Your task to perform on an android device: toggle javascript in the chrome app Image 0: 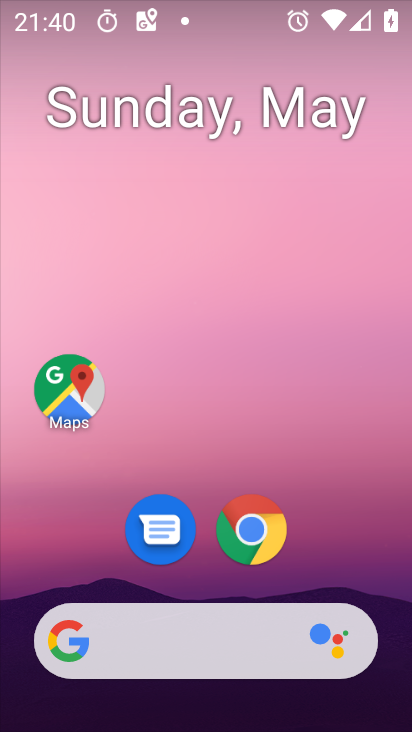
Step 0: click (241, 533)
Your task to perform on an android device: toggle javascript in the chrome app Image 1: 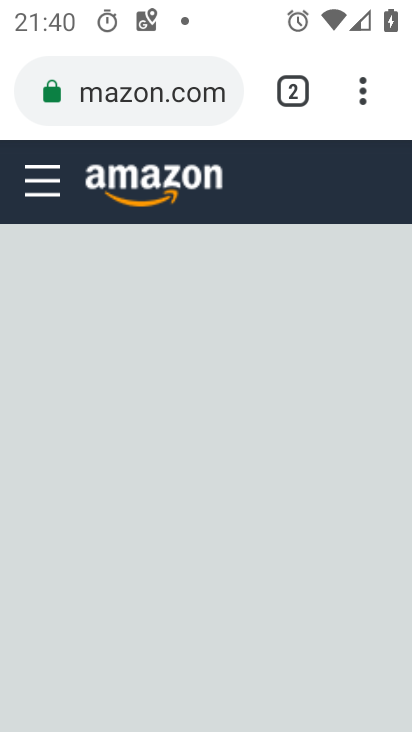
Step 1: click (365, 93)
Your task to perform on an android device: toggle javascript in the chrome app Image 2: 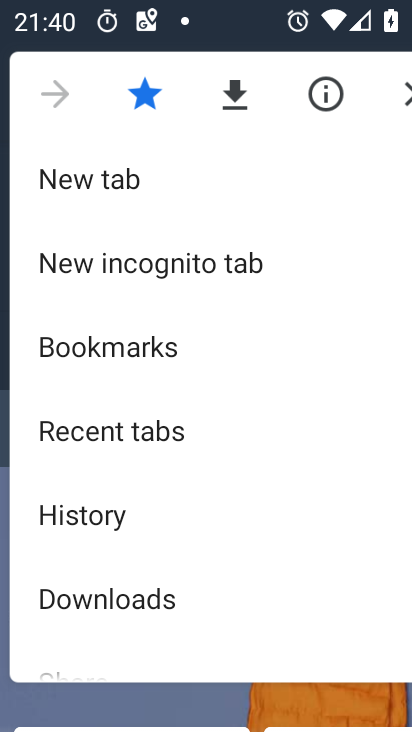
Step 2: drag from (227, 581) to (208, 58)
Your task to perform on an android device: toggle javascript in the chrome app Image 3: 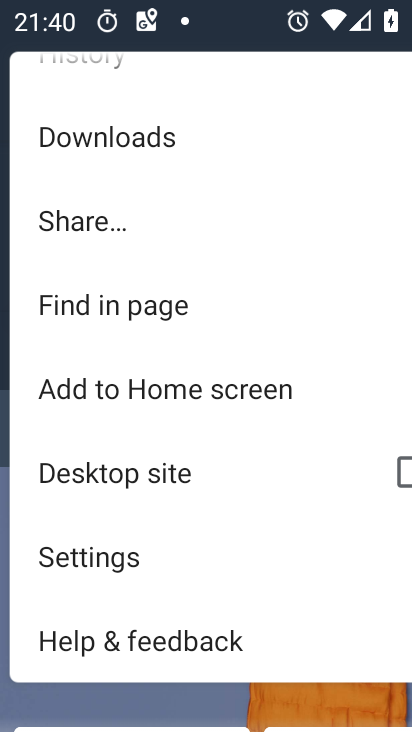
Step 3: click (124, 551)
Your task to perform on an android device: toggle javascript in the chrome app Image 4: 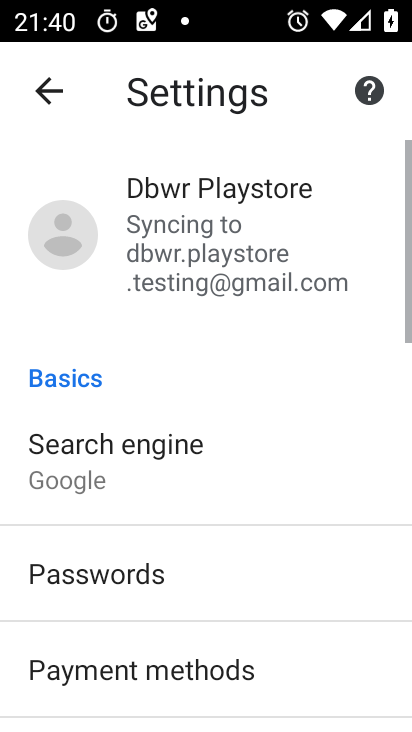
Step 4: drag from (208, 615) to (185, 60)
Your task to perform on an android device: toggle javascript in the chrome app Image 5: 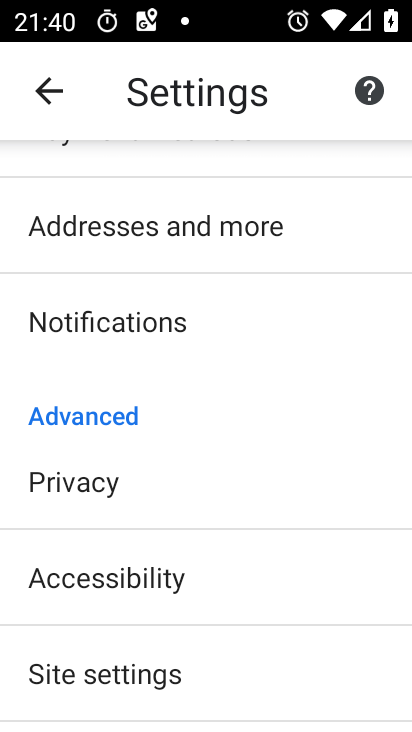
Step 5: drag from (180, 594) to (168, 195)
Your task to perform on an android device: toggle javascript in the chrome app Image 6: 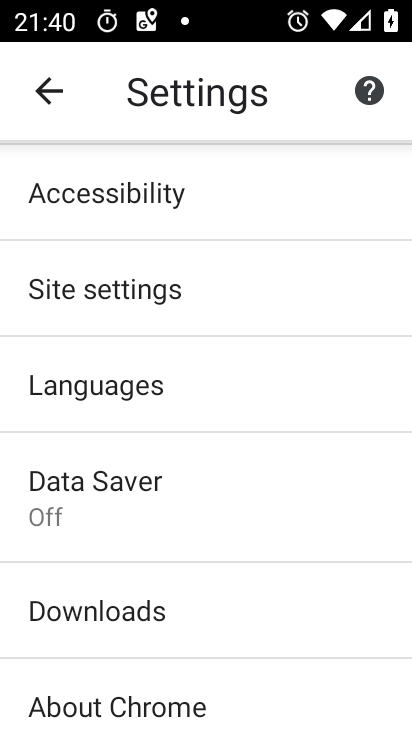
Step 6: click (81, 294)
Your task to perform on an android device: toggle javascript in the chrome app Image 7: 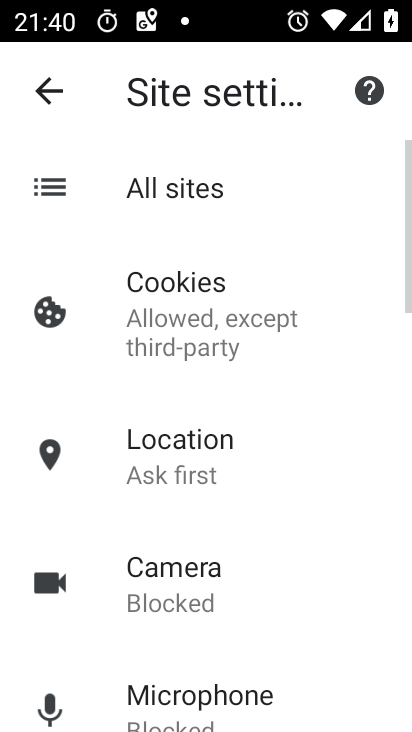
Step 7: drag from (298, 590) to (269, 196)
Your task to perform on an android device: toggle javascript in the chrome app Image 8: 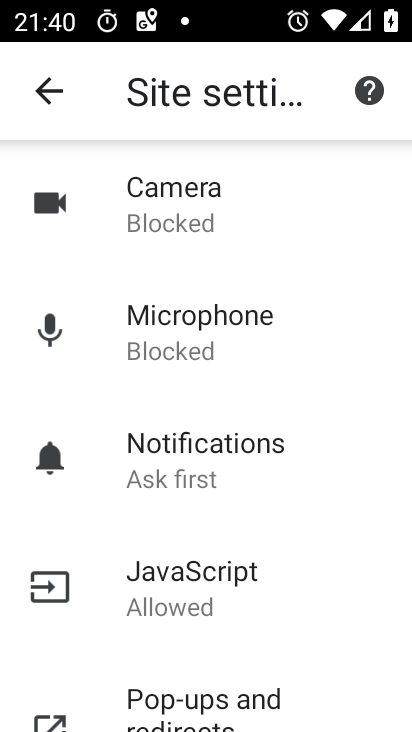
Step 8: drag from (227, 613) to (183, 284)
Your task to perform on an android device: toggle javascript in the chrome app Image 9: 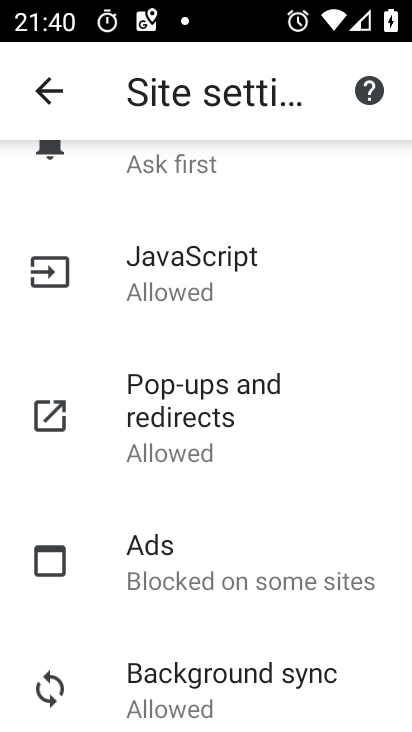
Step 9: click (135, 292)
Your task to perform on an android device: toggle javascript in the chrome app Image 10: 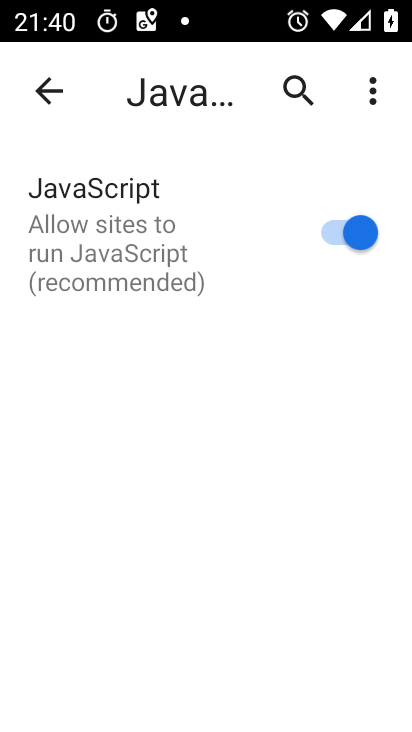
Step 10: click (354, 239)
Your task to perform on an android device: toggle javascript in the chrome app Image 11: 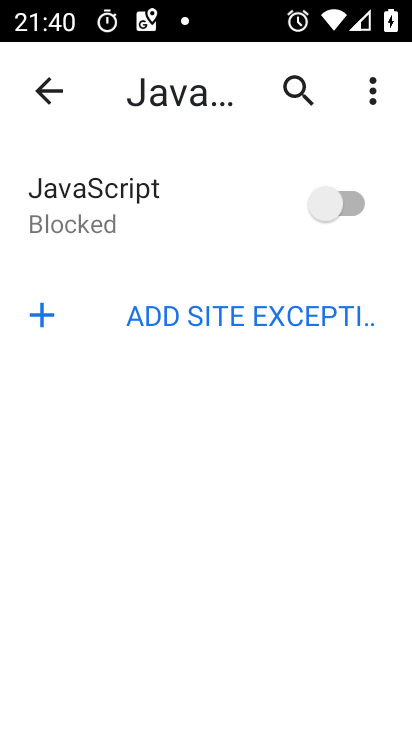
Step 11: task complete